Your task to perform on an android device: allow cookies in the chrome app Image 0: 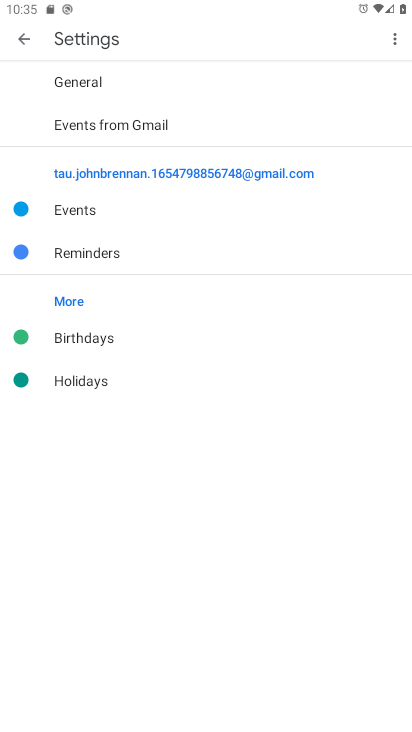
Step 0: press home button
Your task to perform on an android device: allow cookies in the chrome app Image 1: 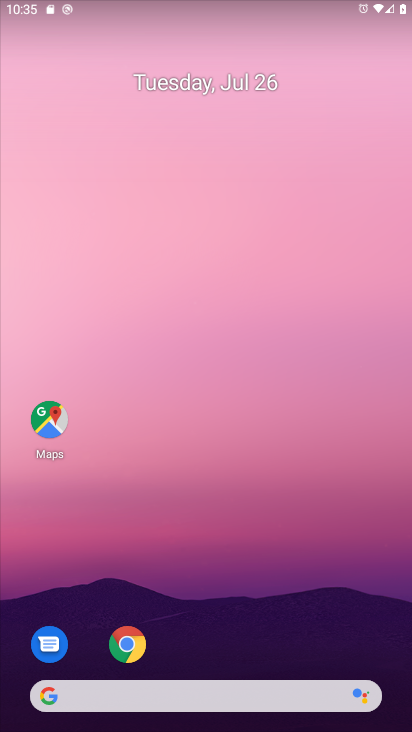
Step 1: click (134, 656)
Your task to perform on an android device: allow cookies in the chrome app Image 2: 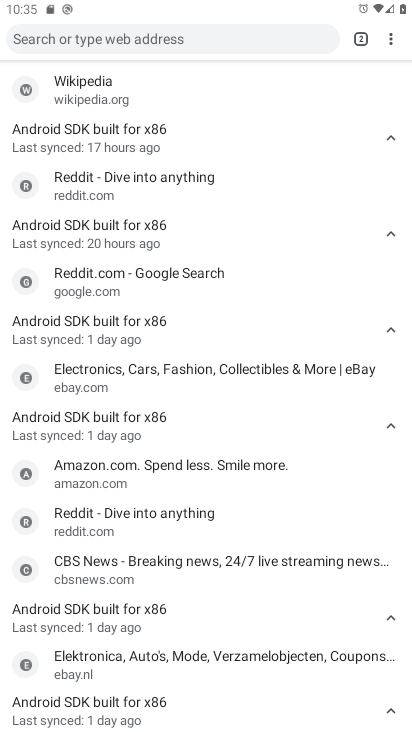
Step 2: click (392, 38)
Your task to perform on an android device: allow cookies in the chrome app Image 3: 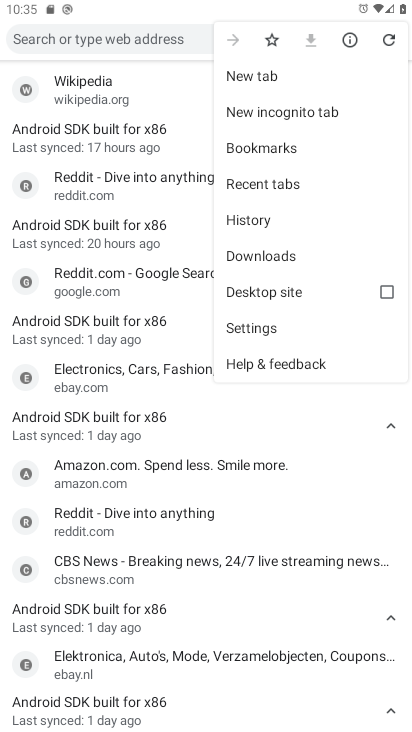
Step 3: click (252, 327)
Your task to perform on an android device: allow cookies in the chrome app Image 4: 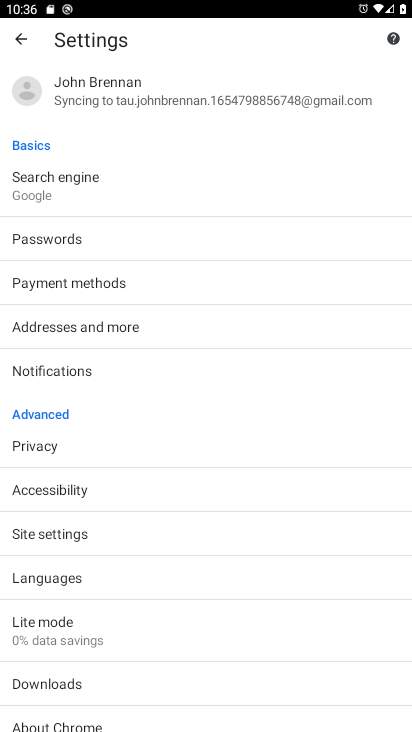
Step 4: click (61, 536)
Your task to perform on an android device: allow cookies in the chrome app Image 5: 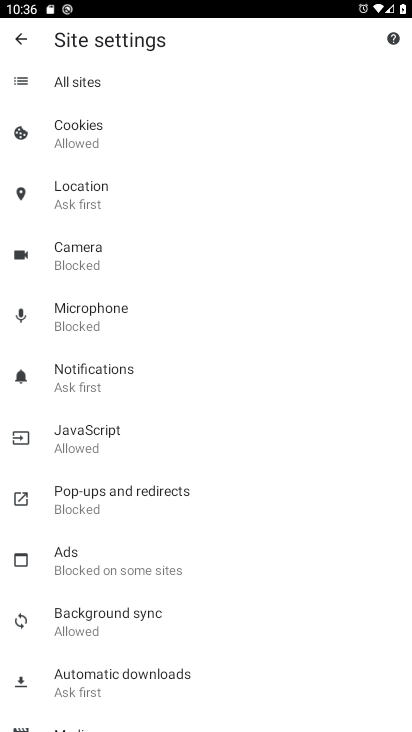
Step 5: click (85, 137)
Your task to perform on an android device: allow cookies in the chrome app Image 6: 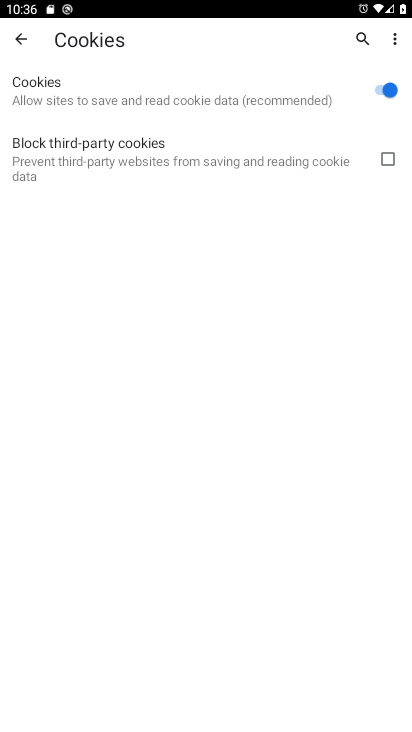
Step 6: task complete